Your task to perform on an android device: turn on the 12-hour format for clock Image 0: 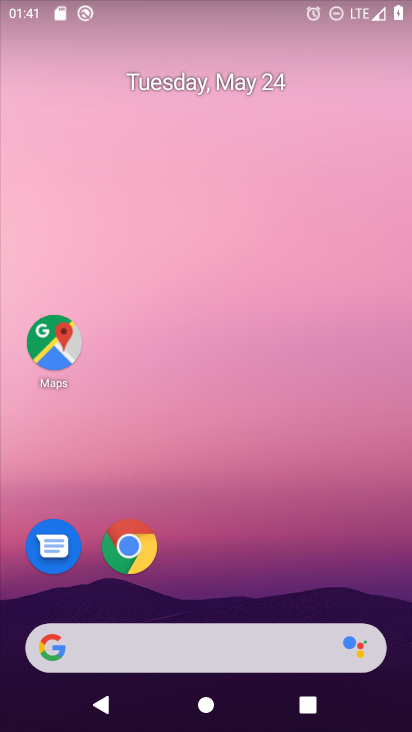
Step 0: drag from (162, 601) to (109, 1)
Your task to perform on an android device: turn on the 12-hour format for clock Image 1: 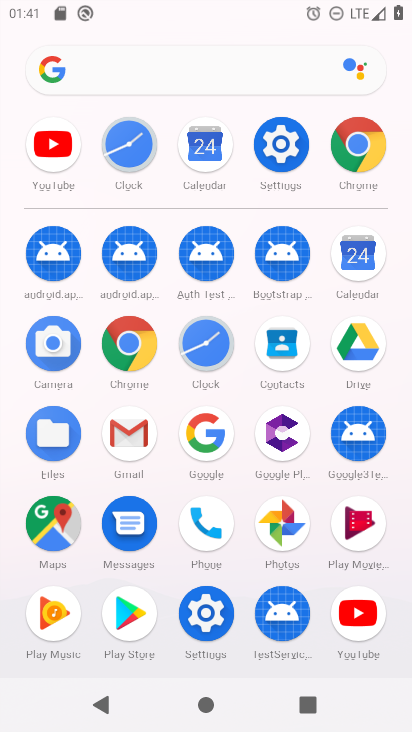
Step 1: click (209, 344)
Your task to perform on an android device: turn on the 12-hour format for clock Image 2: 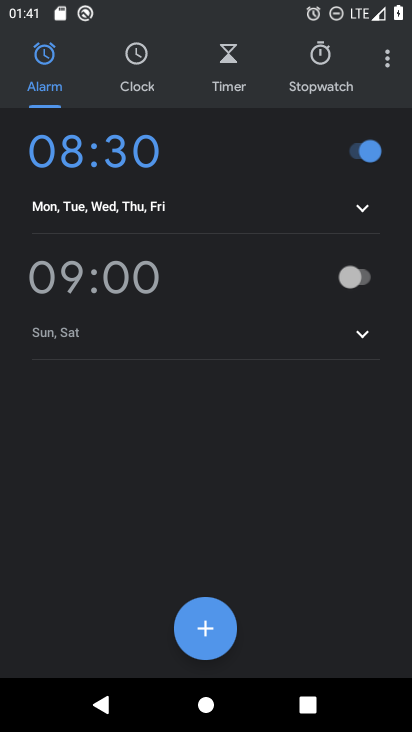
Step 2: click (384, 52)
Your task to perform on an android device: turn on the 12-hour format for clock Image 3: 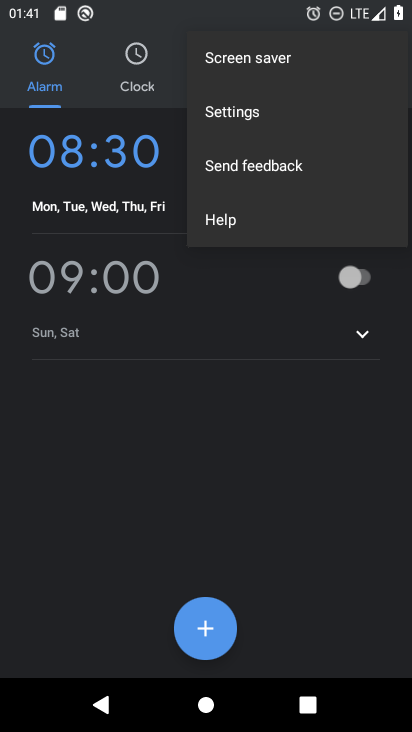
Step 3: click (233, 118)
Your task to perform on an android device: turn on the 12-hour format for clock Image 4: 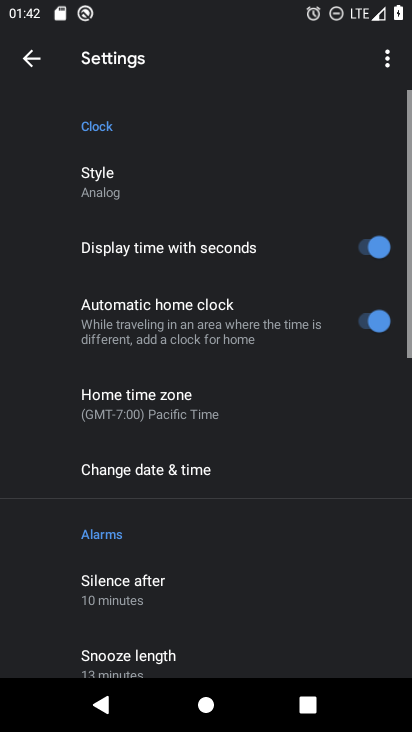
Step 4: drag from (318, 496) to (278, 186)
Your task to perform on an android device: turn on the 12-hour format for clock Image 5: 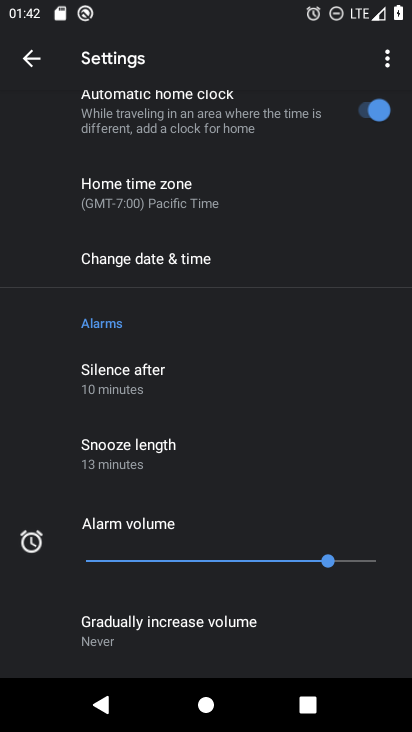
Step 5: click (189, 273)
Your task to perform on an android device: turn on the 12-hour format for clock Image 6: 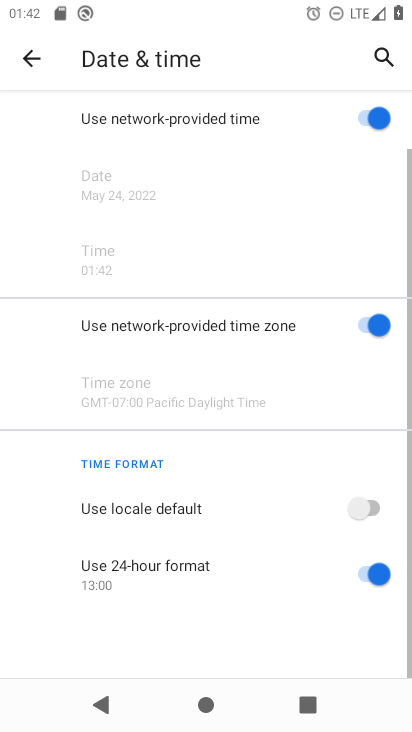
Step 6: drag from (276, 602) to (256, 250)
Your task to perform on an android device: turn on the 12-hour format for clock Image 7: 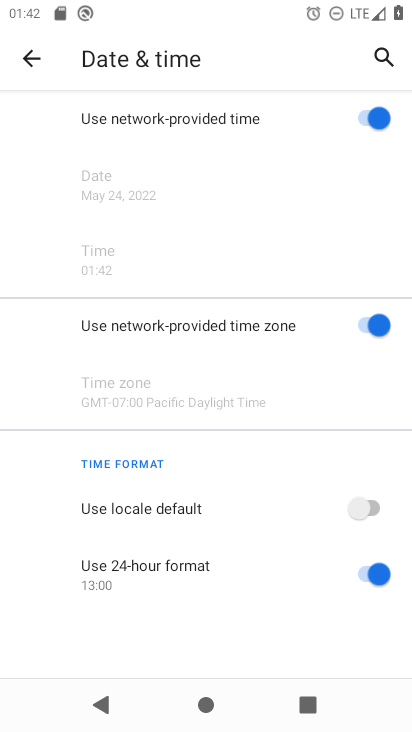
Step 7: click (375, 573)
Your task to perform on an android device: turn on the 12-hour format for clock Image 8: 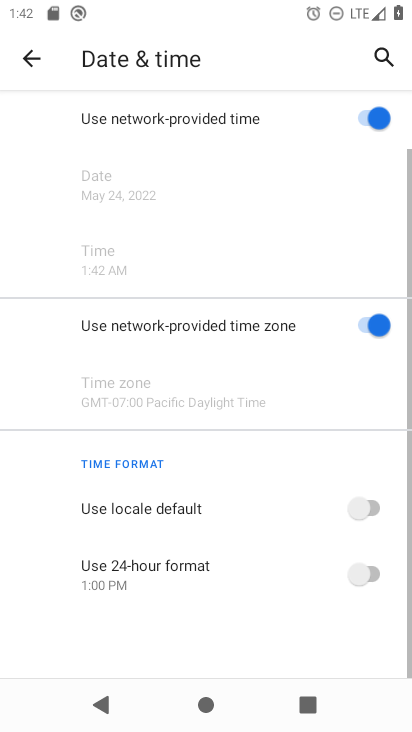
Step 8: task complete